Your task to perform on an android device: Search for seafood restaurants on Google Maps Image 0: 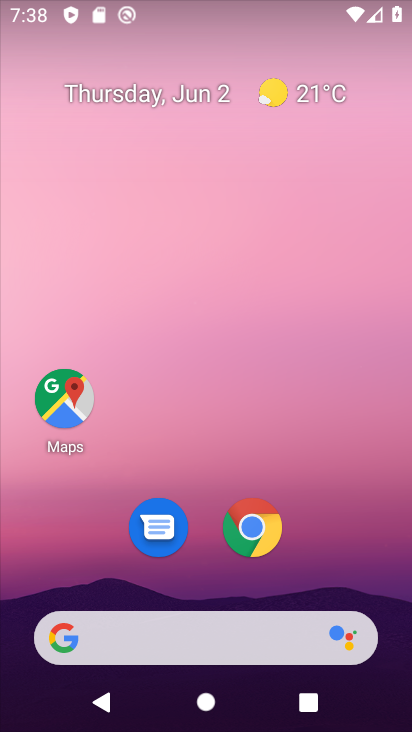
Step 0: click (64, 400)
Your task to perform on an android device: Search for seafood restaurants on Google Maps Image 1: 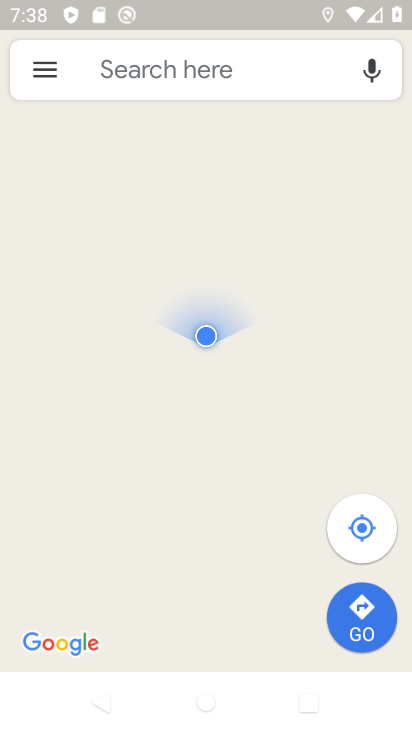
Step 1: click (235, 72)
Your task to perform on an android device: Search for seafood restaurants on Google Maps Image 2: 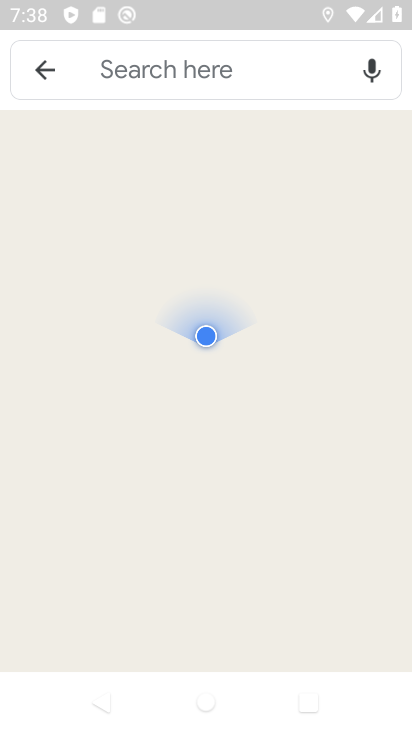
Step 2: click (160, 64)
Your task to perform on an android device: Search for seafood restaurants on Google Maps Image 3: 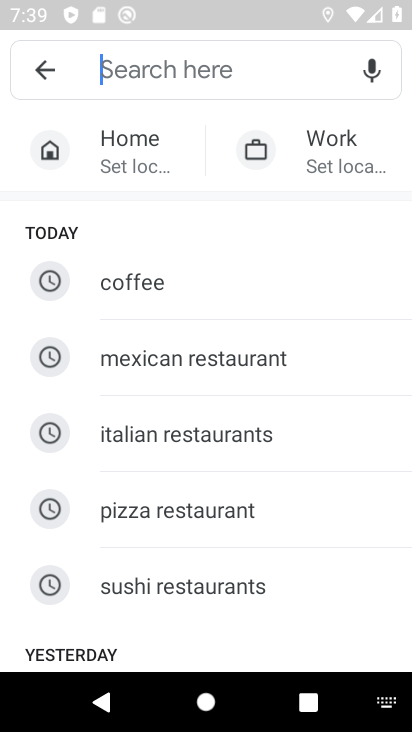
Step 3: type "seafood"
Your task to perform on an android device: Search for seafood restaurants on Google Maps Image 4: 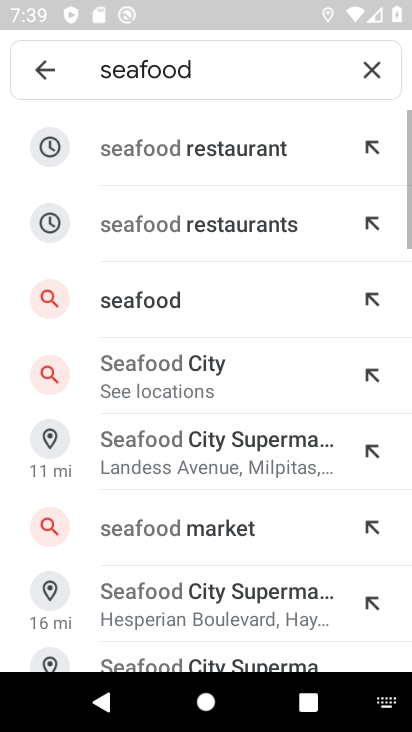
Step 4: click (229, 146)
Your task to perform on an android device: Search for seafood restaurants on Google Maps Image 5: 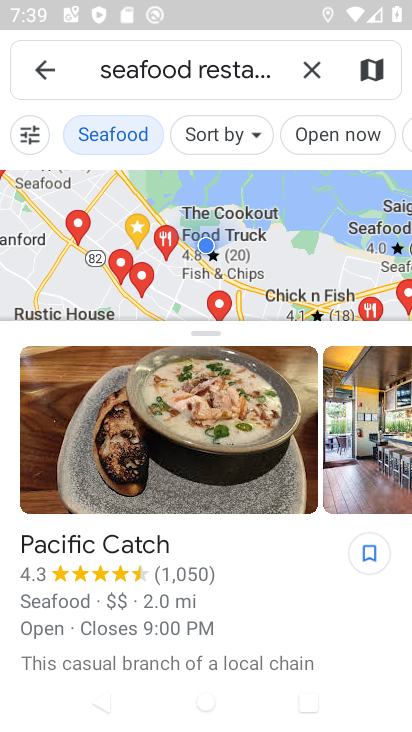
Step 5: task complete